Your task to perform on an android device: change text size in settings app Image 0: 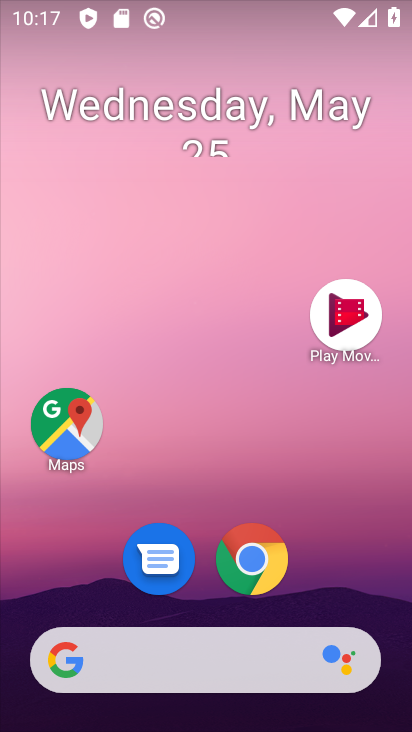
Step 0: drag from (359, 588) to (359, 122)
Your task to perform on an android device: change text size in settings app Image 1: 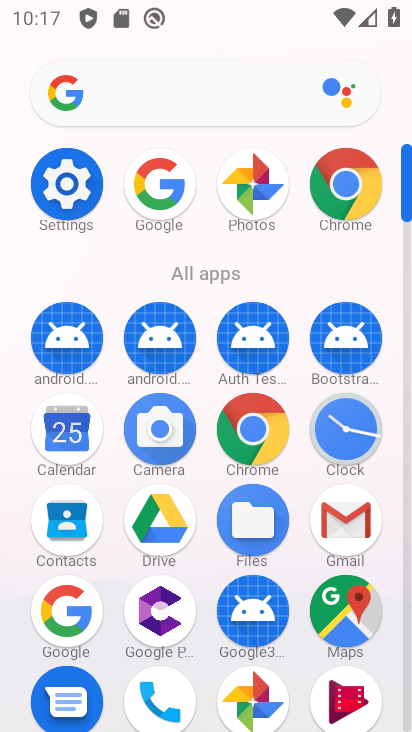
Step 1: click (58, 180)
Your task to perform on an android device: change text size in settings app Image 2: 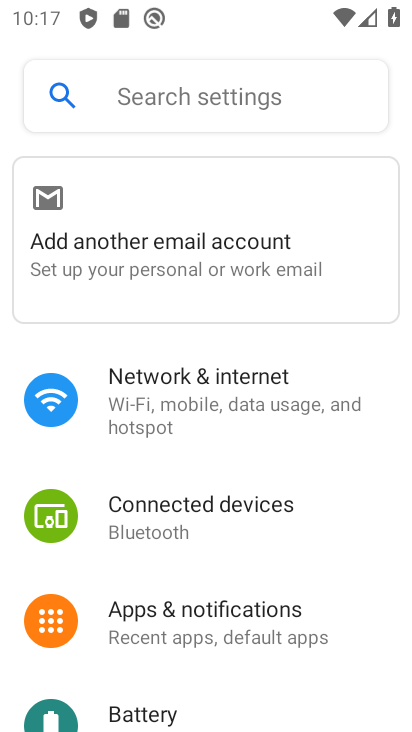
Step 2: drag from (300, 690) to (321, 329)
Your task to perform on an android device: change text size in settings app Image 3: 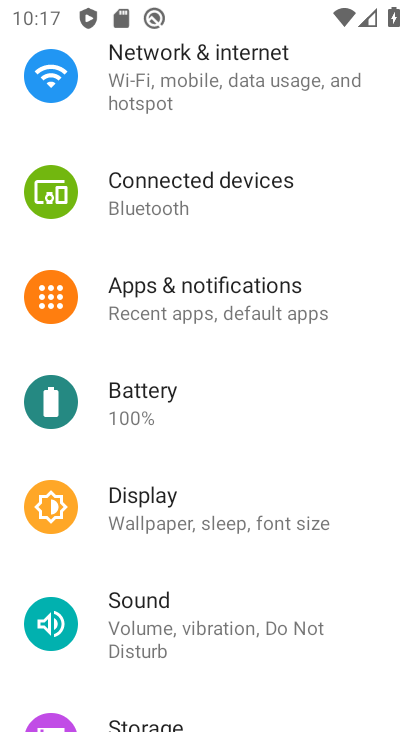
Step 3: click (245, 526)
Your task to perform on an android device: change text size in settings app Image 4: 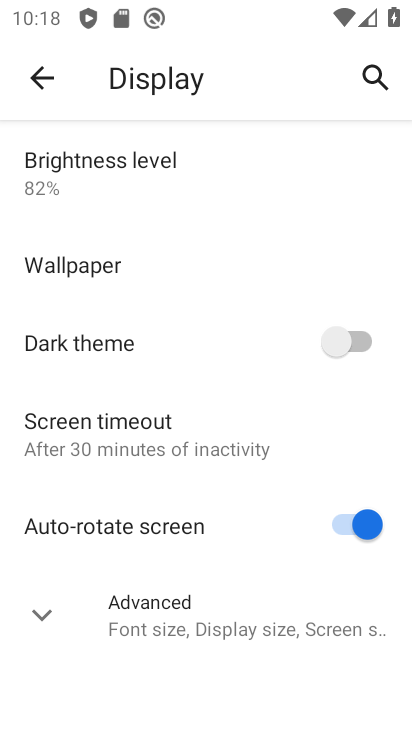
Step 4: click (126, 613)
Your task to perform on an android device: change text size in settings app Image 5: 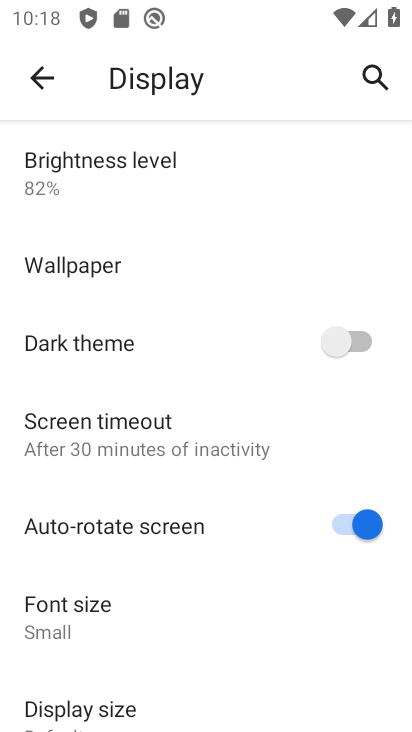
Step 5: drag from (311, 659) to (306, 442)
Your task to perform on an android device: change text size in settings app Image 6: 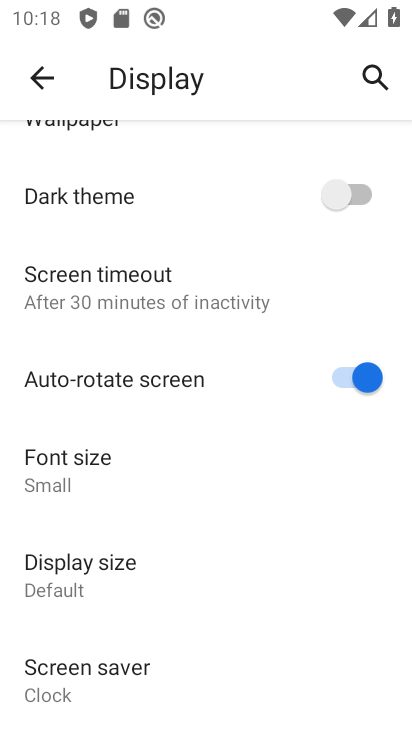
Step 6: drag from (232, 670) to (246, 534)
Your task to perform on an android device: change text size in settings app Image 7: 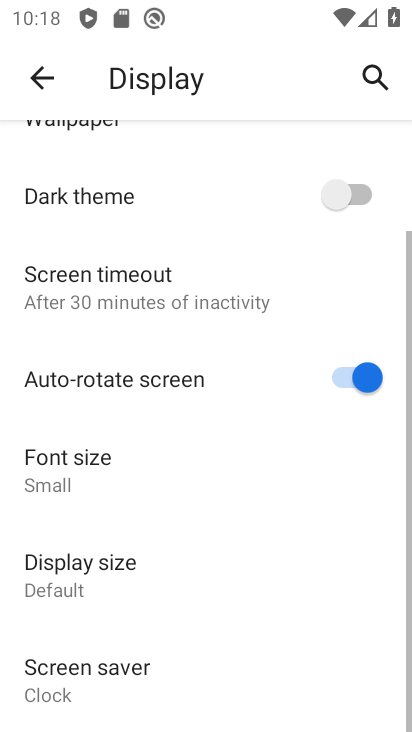
Step 7: click (103, 460)
Your task to perform on an android device: change text size in settings app Image 8: 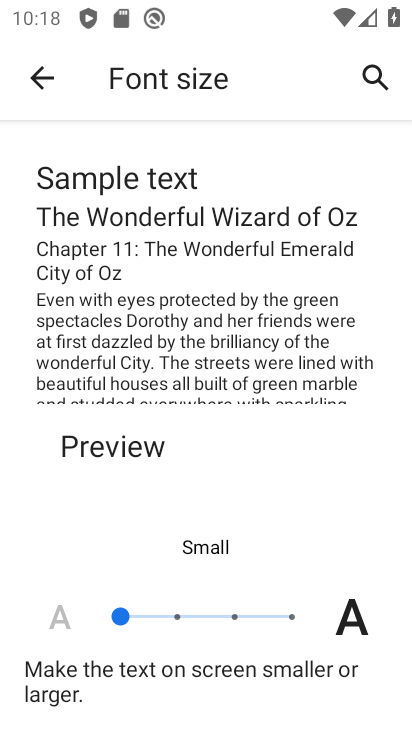
Step 8: drag from (124, 608) to (162, 613)
Your task to perform on an android device: change text size in settings app Image 9: 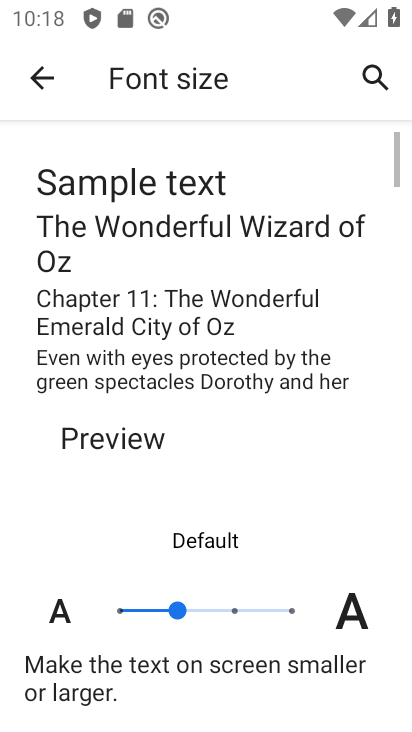
Step 9: click (181, 612)
Your task to perform on an android device: change text size in settings app Image 10: 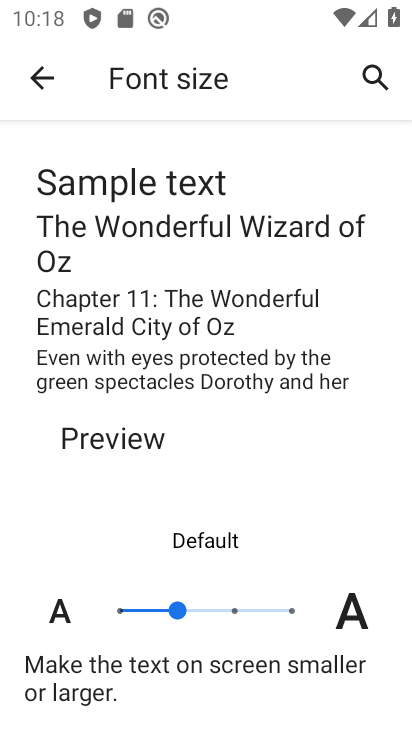
Step 10: task complete